Your task to perform on an android device: Open sound settings Image 0: 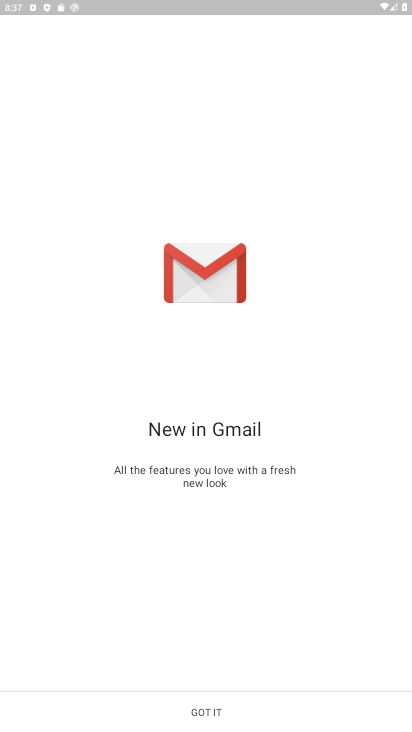
Step 0: drag from (257, 8) to (254, 686)
Your task to perform on an android device: Open sound settings Image 1: 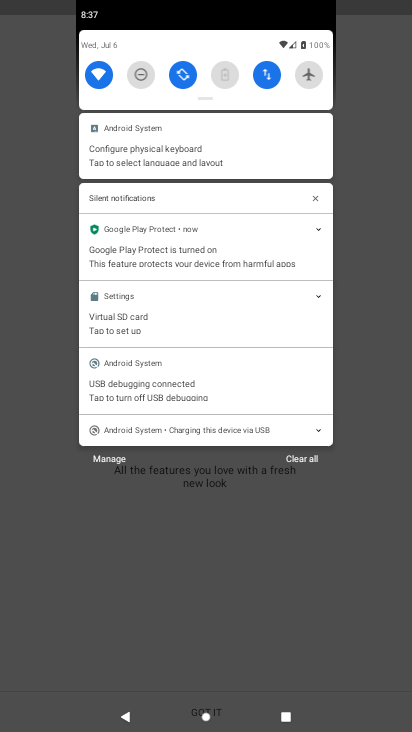
Step 1: drag from (206, 49) to (225, 549)
Your task to perform on an android device: Open sound settings Image 2: 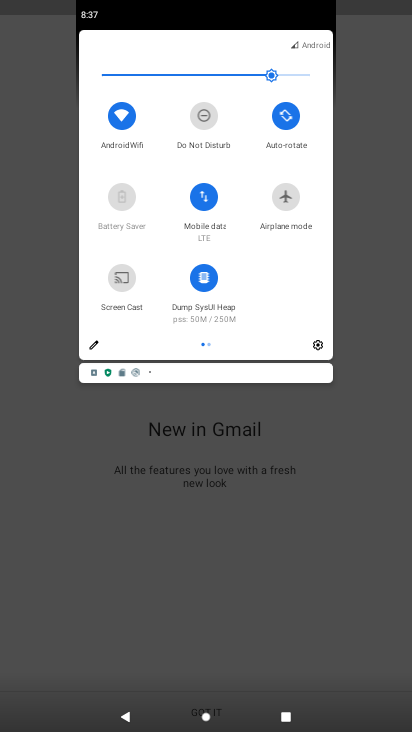
Step 2: click (313, 347)
Your task to perform on an android device: Open sound settings Image 3: 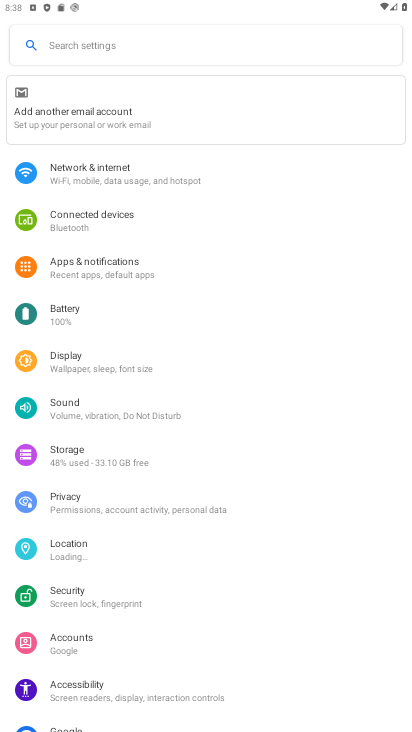
Step 3: click (90, 404)
Your task to perform on an android device: Open sound settings Image 4: 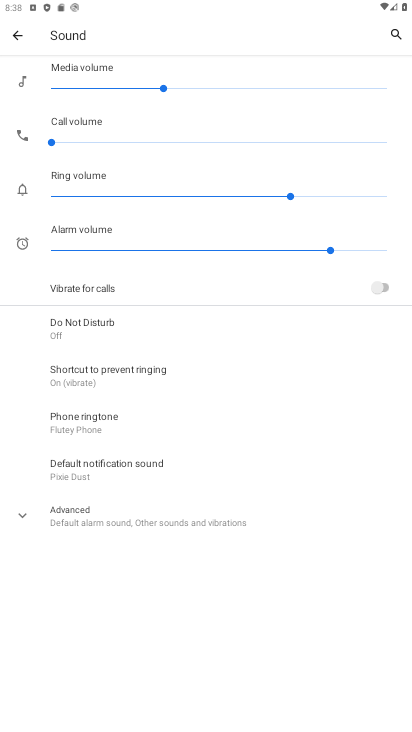
Step 4: task complete